Your task to perform on an android device: make emails show in primary in the gmail app Image 0: 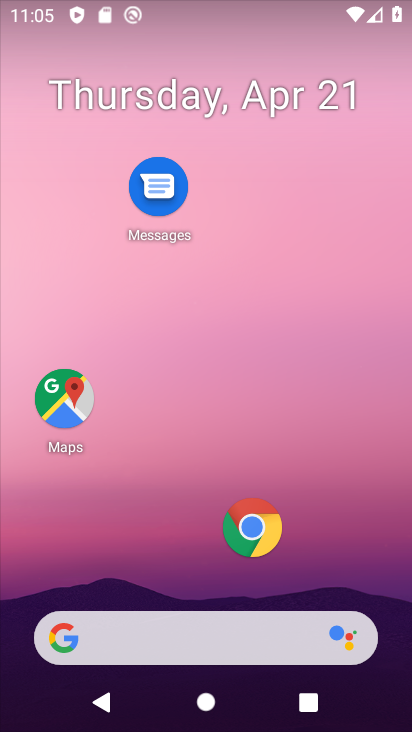
Step 0: drag from (256, 602) to (168, 90)
Your task to perform on an android device: make emails show in primary in the gmail app Image 1: 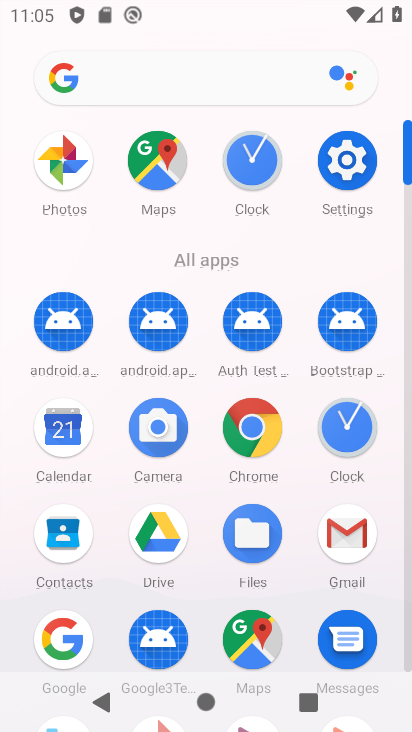
Step 1: click (356, 540)
Your task to perform on an android device: make emails show in primary in the gmail app Image 2: 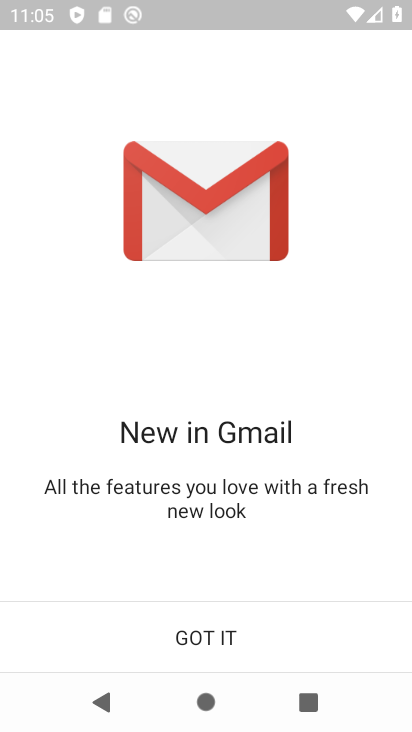
Step 2: click (216, 635)
Your task to perform on an android device: make emails show in primary in the gmail app Image 3: 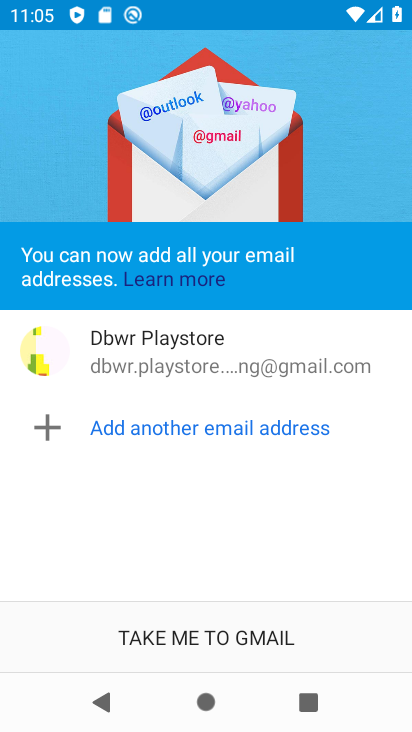
Step 3: click (216, 635)
Your task to perform on an android device: make emails show in primary in the gmail app Image 4: 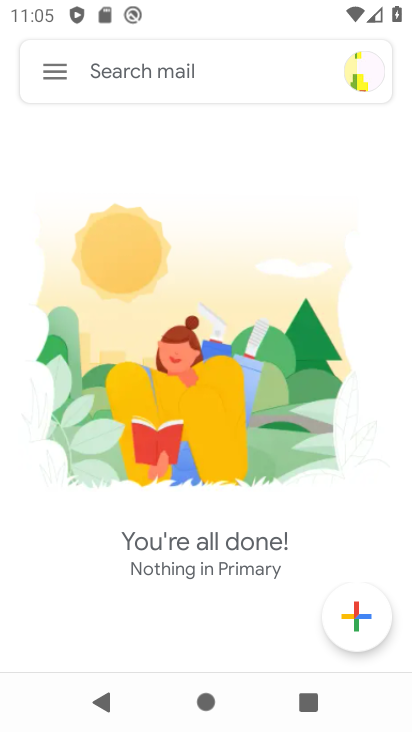
Step 4: task complete